Your task to perform on an android device: change your default location settings in chrome Image 0: 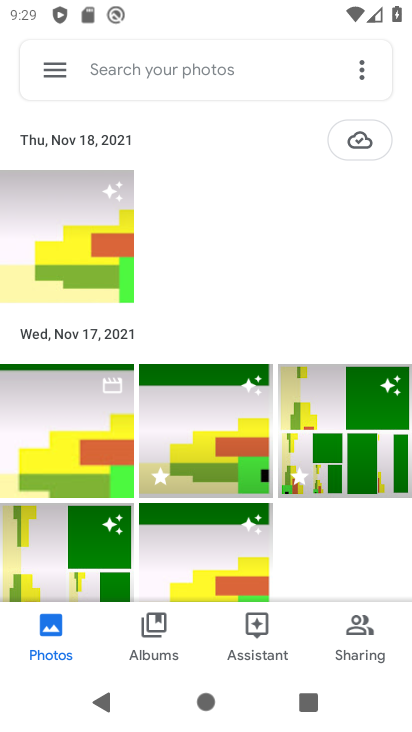
Step 0: press home button
Your task to perform on an android device: change your default location settings in chrome Image 1: 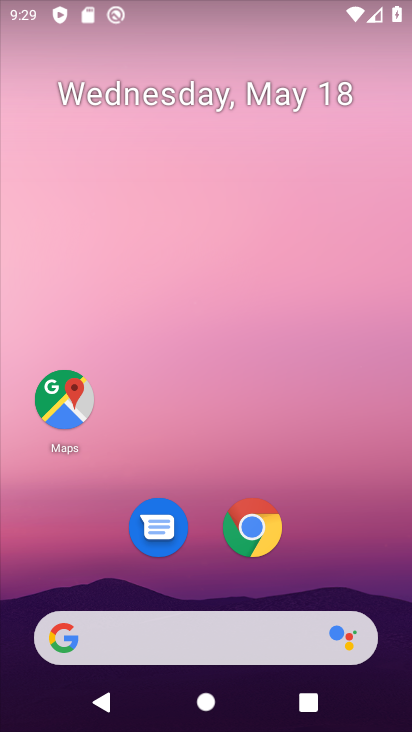
Step 1: click (261, 535)
Your task to perform on an android device: change your default location settings in chrome Image 2: 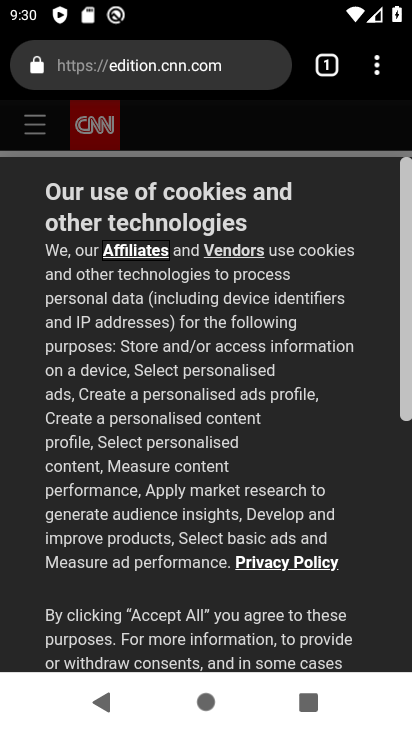
Step 2: click (384, 66)
Your task to perform on an android device: change your default location settings in chrome Image 3: 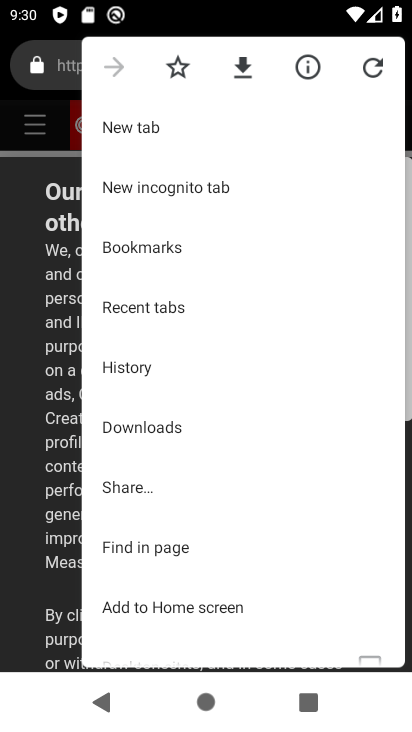
Step 3: drag from (239, 583) to (261, 278)
Your task to perform on an android device: change your default location settings in chrome Image 4: 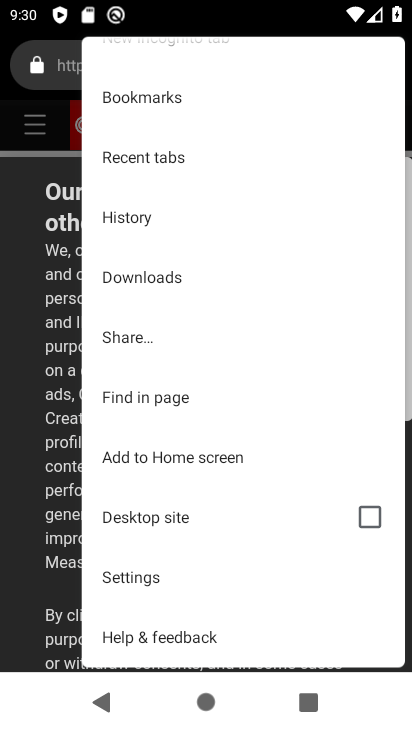
Step 4: click (146, 577)
Your task to perform on an android device: change your default location settings in chrome Image 5: 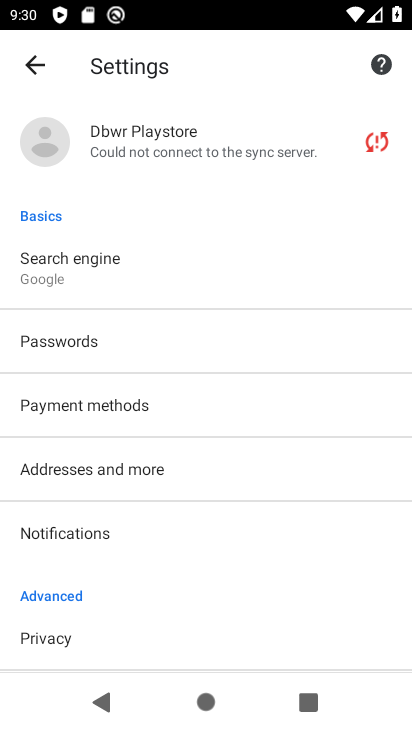
Step 5: drag from (304, 539) to (289, 251)
Your task to perform on an android device: change your default location settings in chrome Image 6: 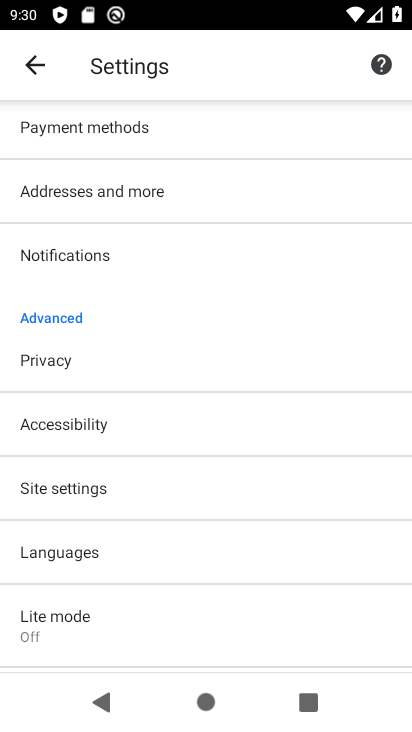
Step 6: click (134, 494)
Your task to perform on an android device: change your default location settings in chrome Image 7: 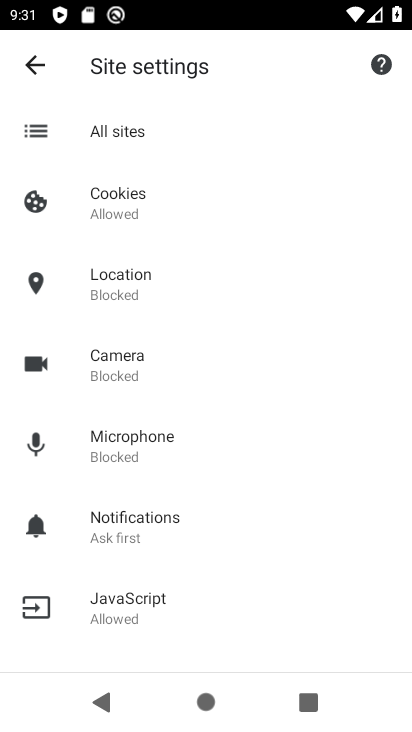
Step 7: click (141, 283)
Your task to perform on an android device: change your default location settings in chrome Image 8: 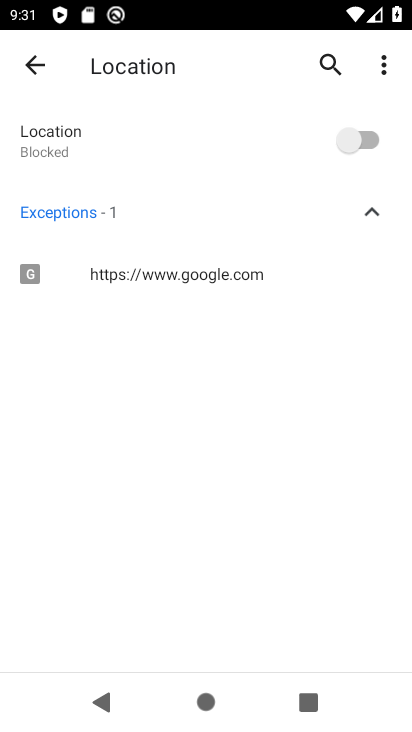
Step 8: click (367, 141)
Your task to perform on an android device: change your default location settings in chrome Image 9: 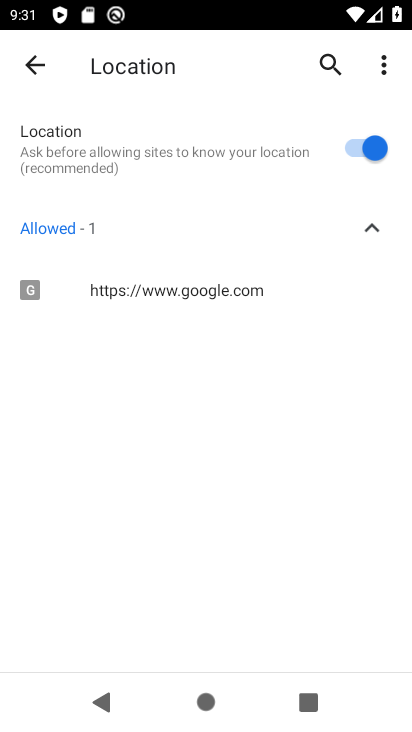
Step 9: task complete